Your task to perform on an android device: Open ESPN.com Image 0: 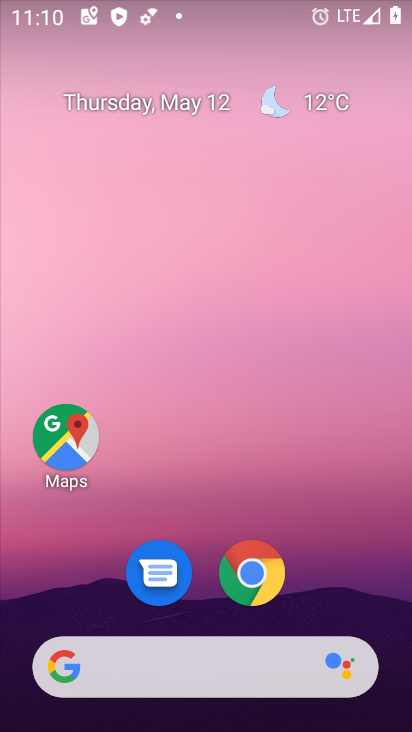
Step 0: click (244, 674)
Your task to perform on an android device: Open ESPN.com Image 1: 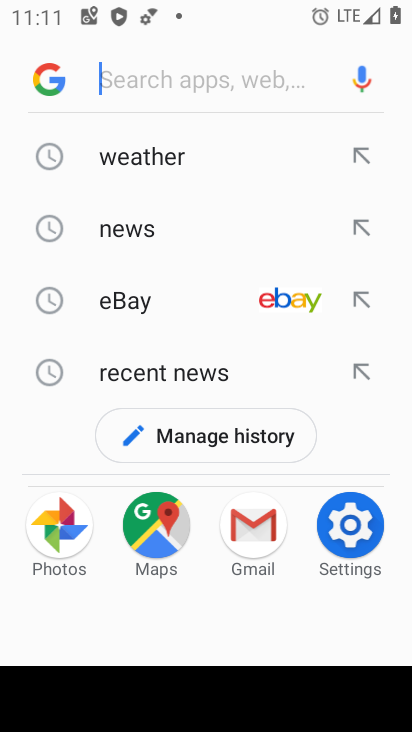
Step 1: type "espn.com"
Your task to perform on an android device: Open ESPN.com Image 2: 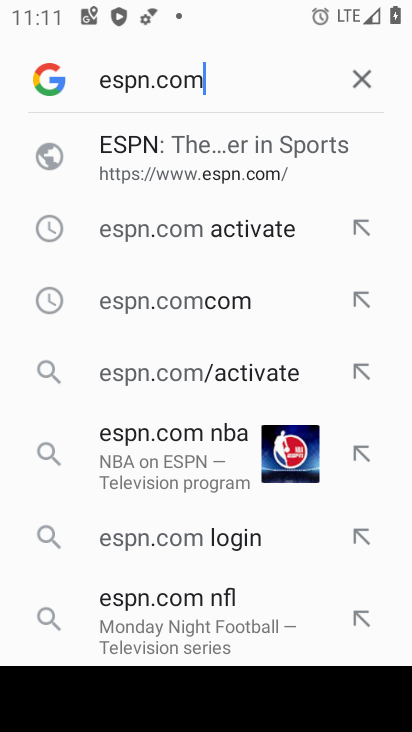
Step 2: click (231, 177)
Your task to perform on an android device: Open ESPN.com Image 3: 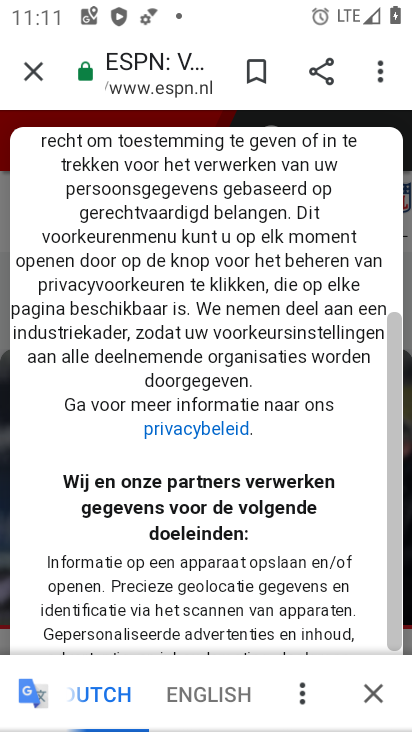
Step 3: task complete